Your task to perform on an android device: Open notification settings Image 0: 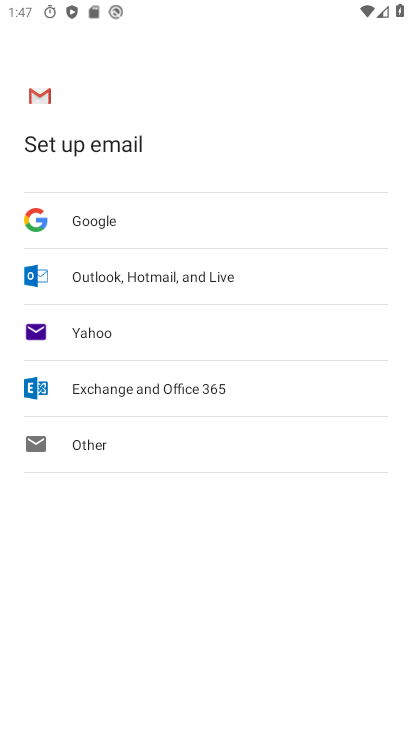
Step 0: press home button
Your task to perform on an android device: Open notification settings Image 1: 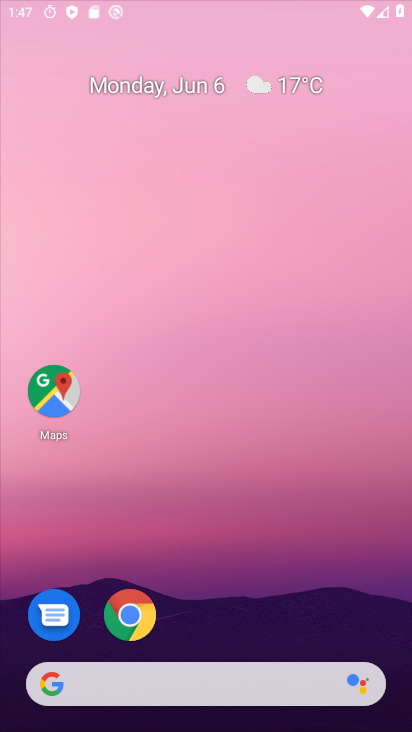
Step 1: drag from (305, 532) to (376, 99)
Your task to perform on an android device: Open notification settings Image 2: 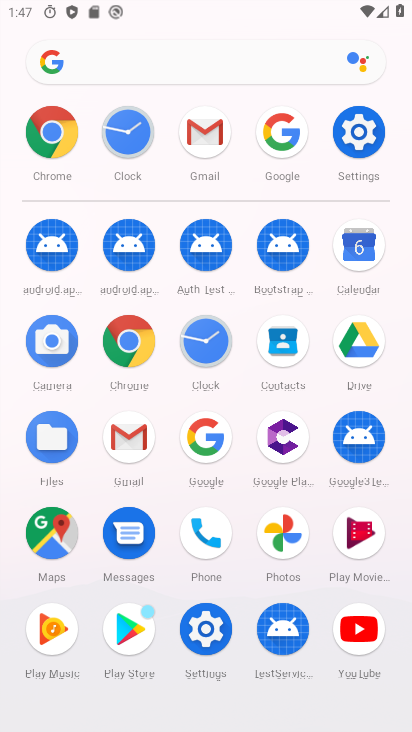
Step 2: click (366, 137)
Your task to perform on an android device: Open notification settings Image 3: 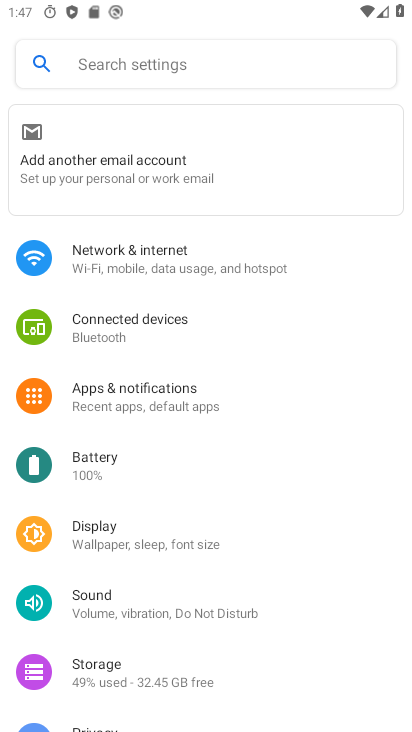
Step 3: click (159, 402)
Your task to perform on an android device: Open notification settings Image 4: 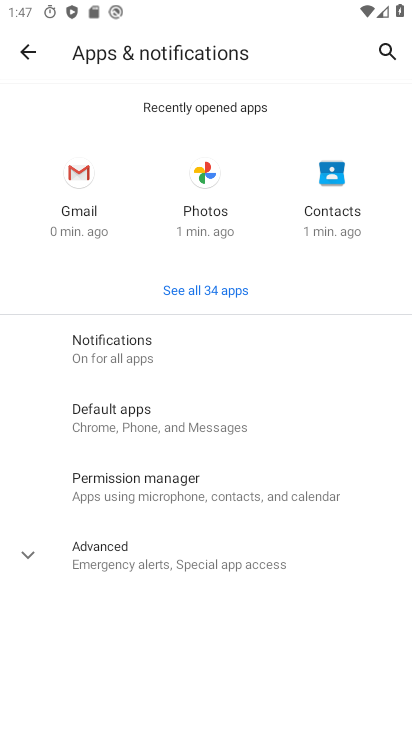
Step 4: click (174, 361)
Your task to perform on an android device: Open notification settings Image 5: 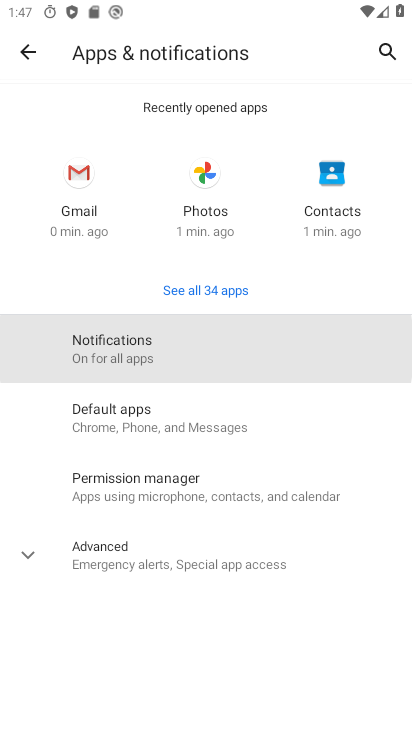
Step 5: click (174, 361)
Your task to perform on an android device: Open notification settings Image 6: 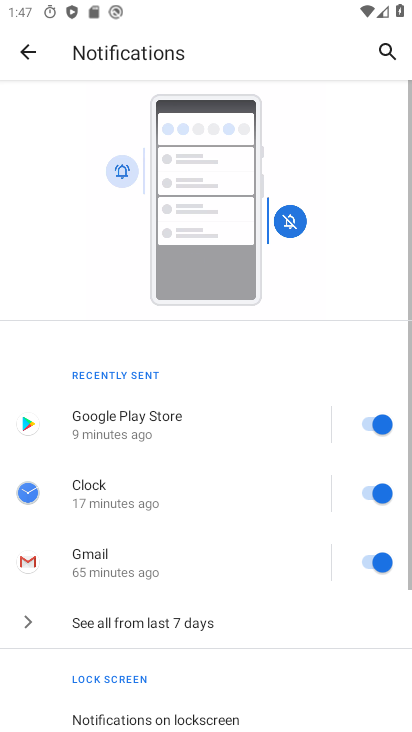
Step 6: task complete